Your task to perform on an android device: What's a good restaurant in Phoenix? Image 0: 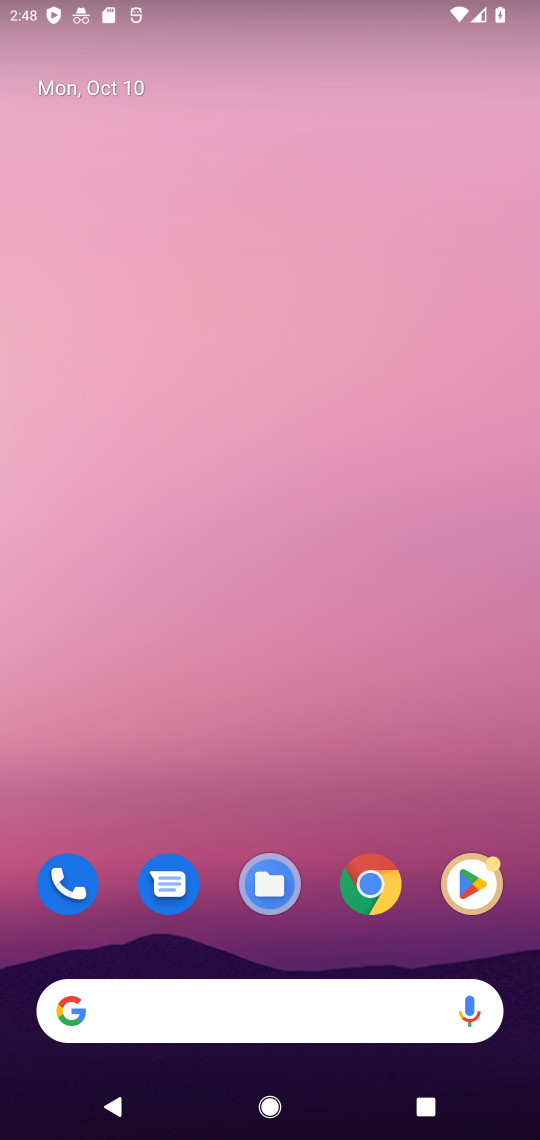
Step 0: click (244, 1002)
Your task to perform on an android device: What's a good restaurant in Phoenix? Image 1: 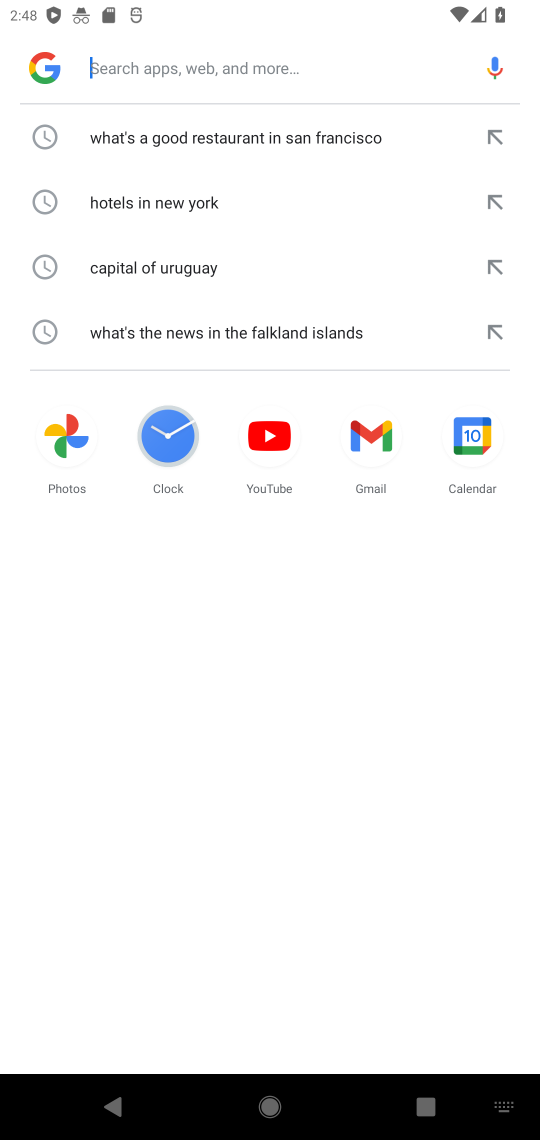
Step 1: type "good restaurant in Phoenix?"
Your task to perform on an android device: What's a good restaurant in Phoenix? Image 2: 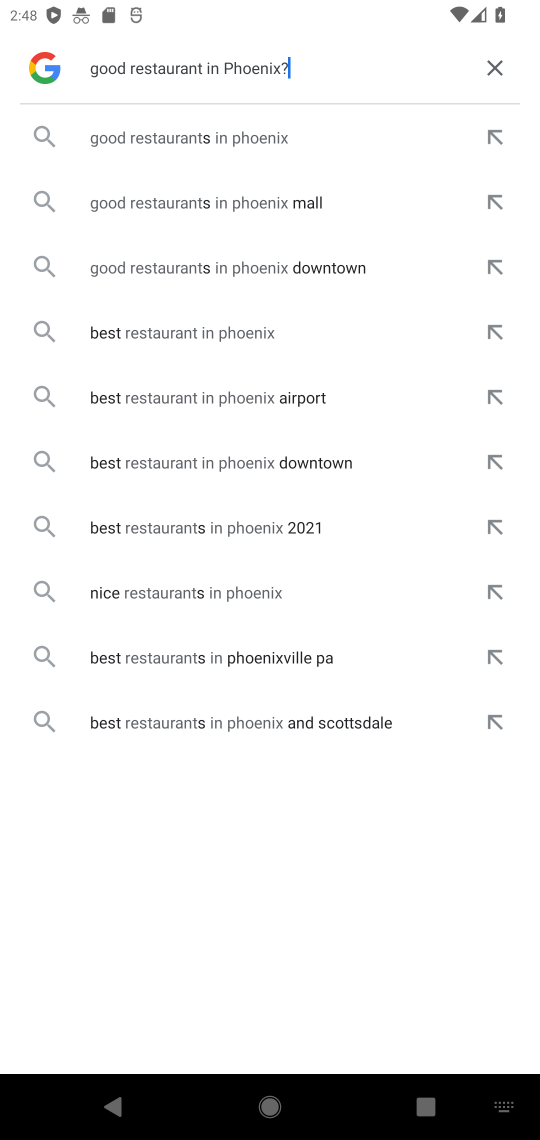
Step 2: click (171, 139)
Your task to perform on an android device: What's a good restaurant in Phoenix? Image 3: 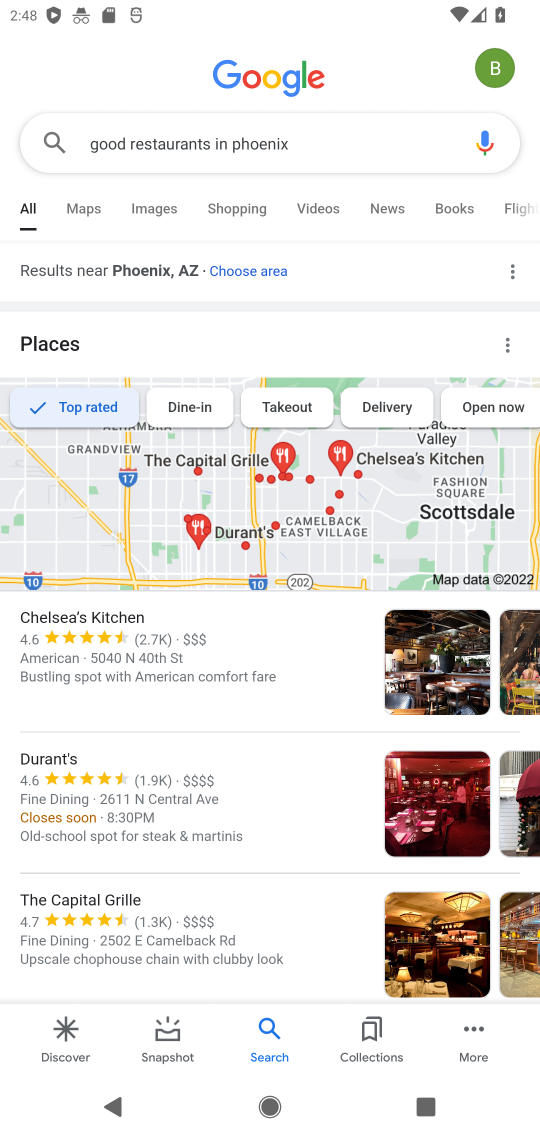
Step 3: task complete